Your task to perform on an android device: Go to notification settings Image 0: 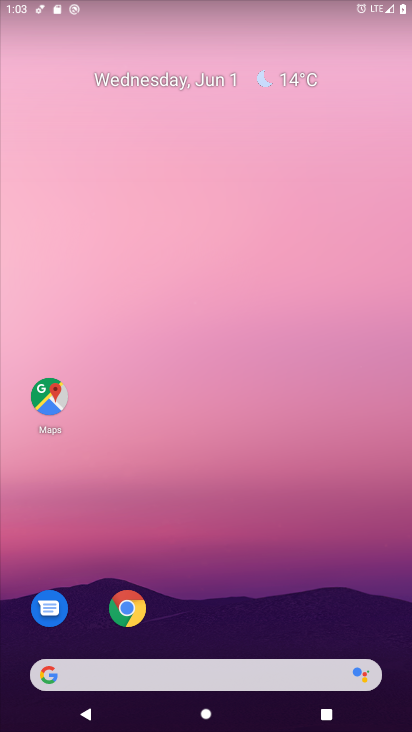
Step 0: drag from (224, 629) to (264, 303)
Your task to perform on an android device: Go to notification settings Image 1: 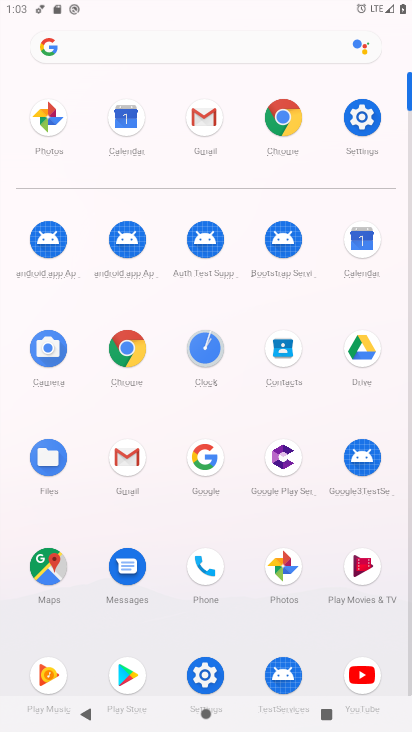
Step 1: click (361, 129)
Your task to perform on an android device: Go to notification settings Image 2: 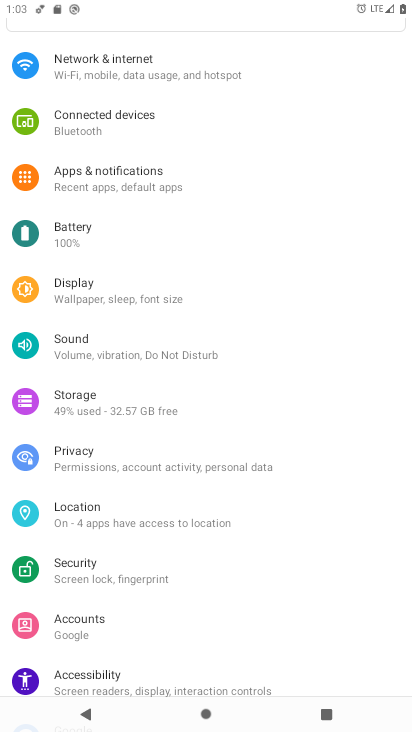
Step 2: click (133, 182)
Your task to perform on an android device: Go to notification settings Image 3: 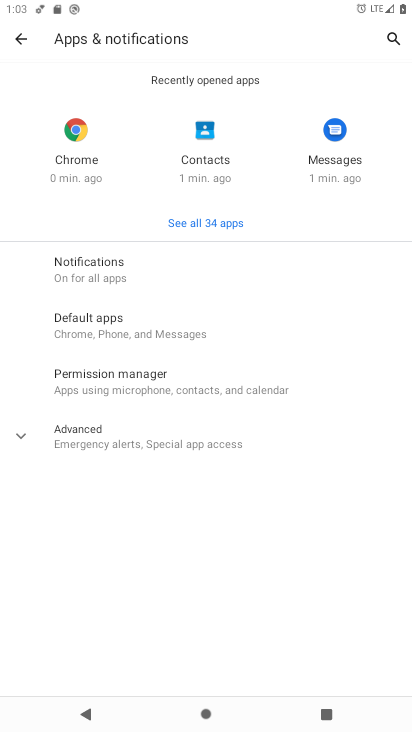
Step 3: click (153, 265)
Your task to perform on an android device: Go to notification settings Image 4: 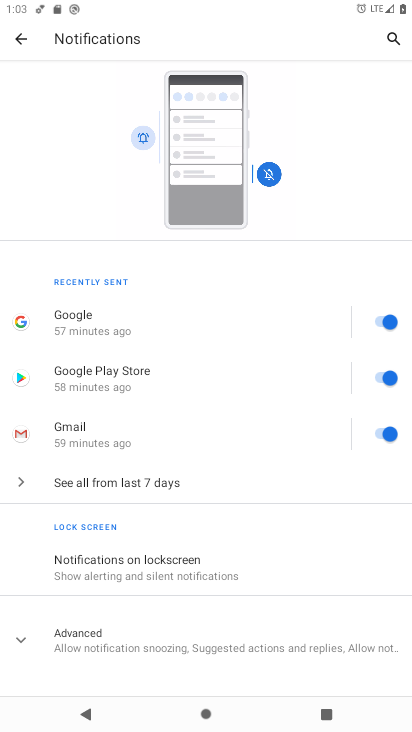
Step 4: task complete